Your task to perform on an android device: toggle sleep mode Image 0: 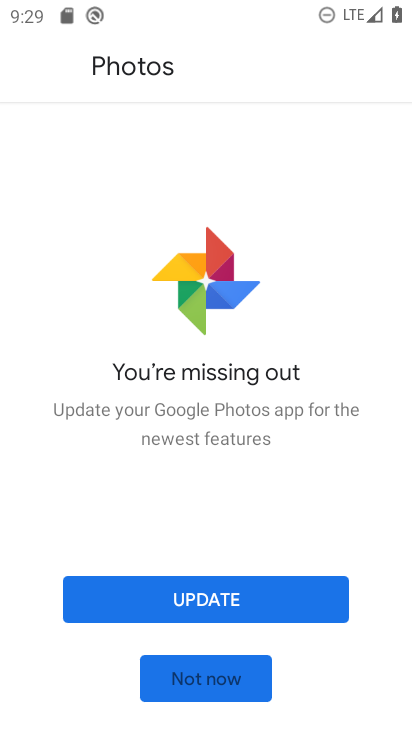
Step 0: press home button
Your task to perform on an android device: toggle sleep mode Image 1: 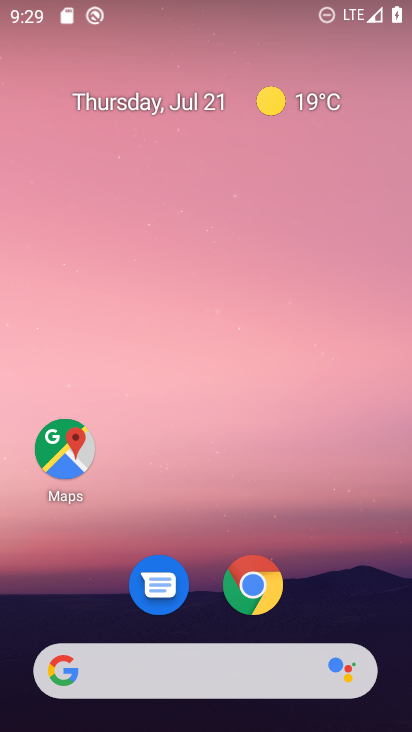
Step 1: drag from (340, 576) to (356, 46)
Your task to perform on an android device: toggle sleep mode Image 2: 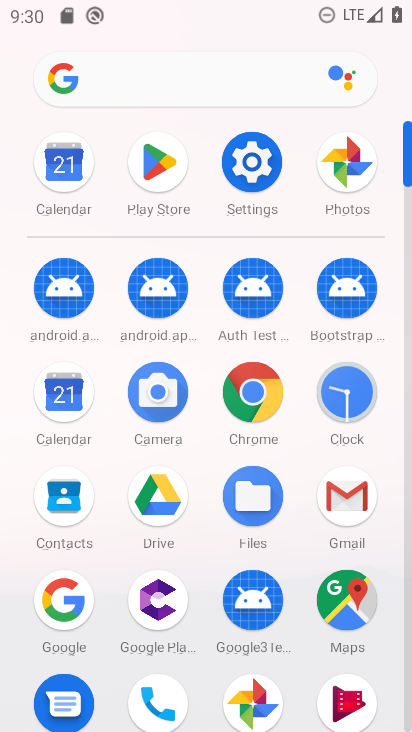
Step 2: click (255, 161)
Your task to perform on an android device: toggle sleep mode Image 3: 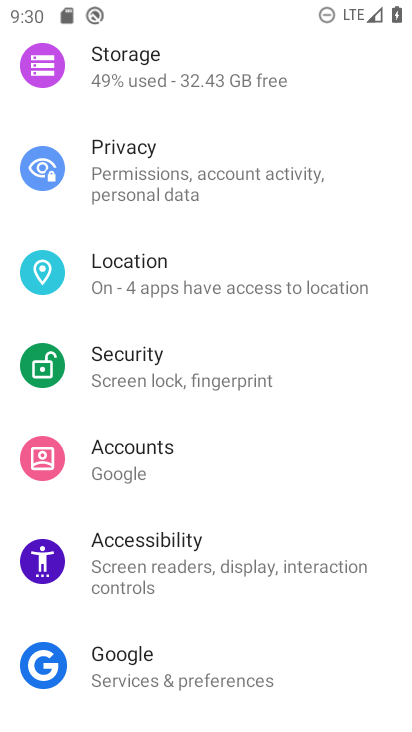
Step 3: drag from (262, 138) to (268, 563)
Your task to perform on an android device: toggle sleep mode Image 4: 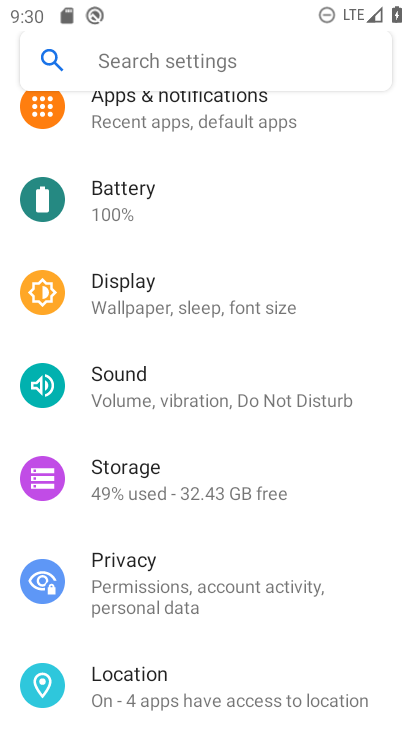
Step 4: click (226, 286)
Your task to perform on an android device: toggle sleep mode Image 5: 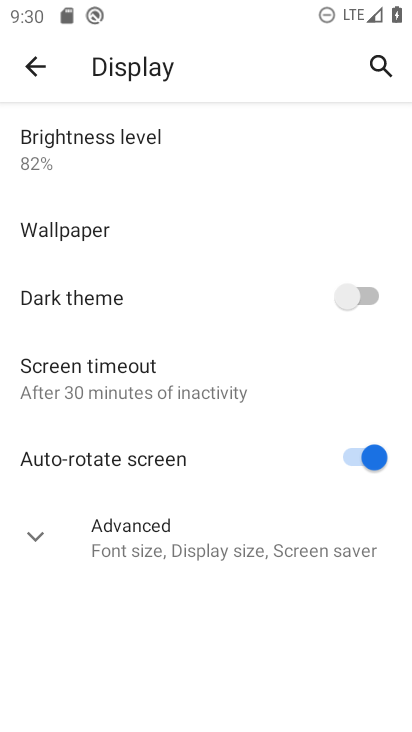
Step 5: click (41, 538)
Your task to perform on an android device: toggle sleep mode Image 6: 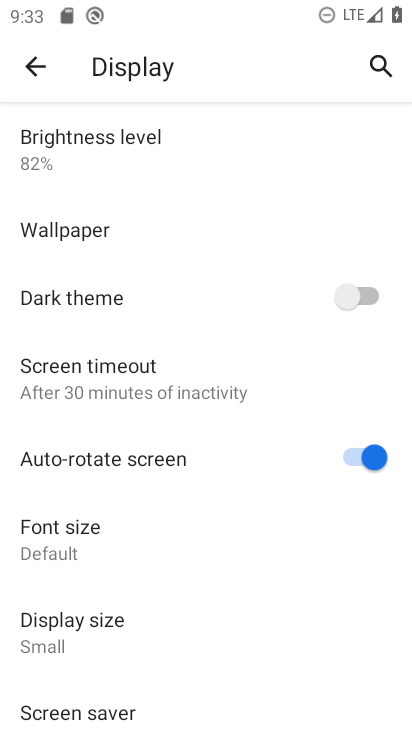
Step 6: task complete